Your task to perform on an android device: Search for vegetarian restaurants on Maps Image 0: 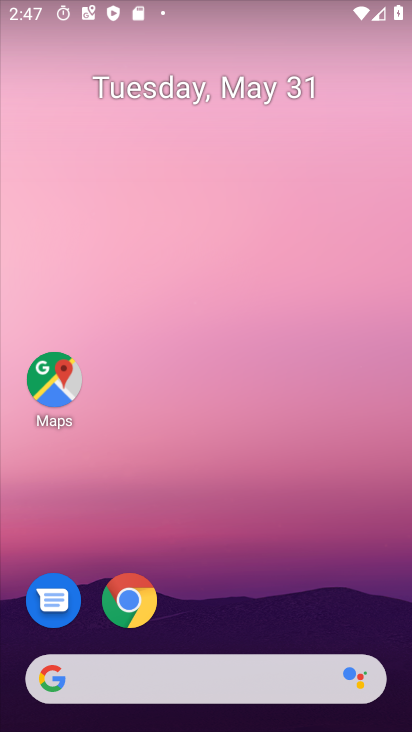
Step 0: press home button
Your task to perform on an android device: Search for vegetarian restaurants on Maps Image 1: 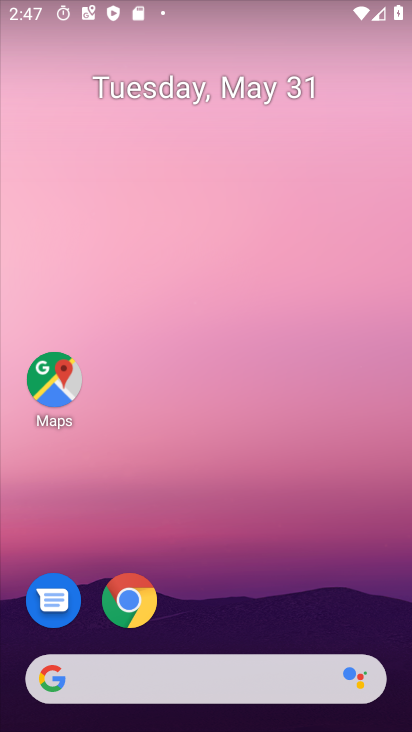
Step 1: drag from (220, 631) to (215, 112)
Your task to perform on an android device: Search for vegetarian restaurants on Maps Image 2: 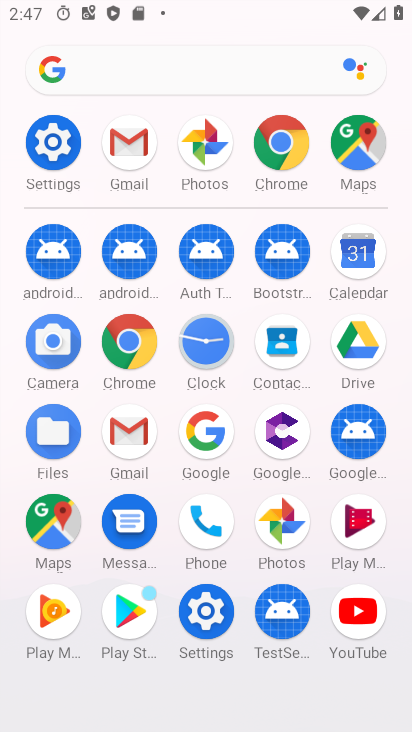
Step 2: click (50, 520)
Your task to perform on an android device: Search for vegetarian restaurants on Maps Image 3: 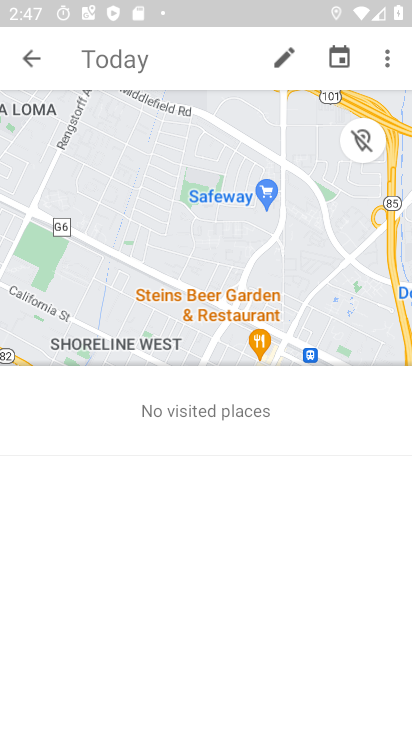
Step 3: click (32, 56)
Your task to perform on an android device: Search for vegetarian restaurants on Maps Image 4: 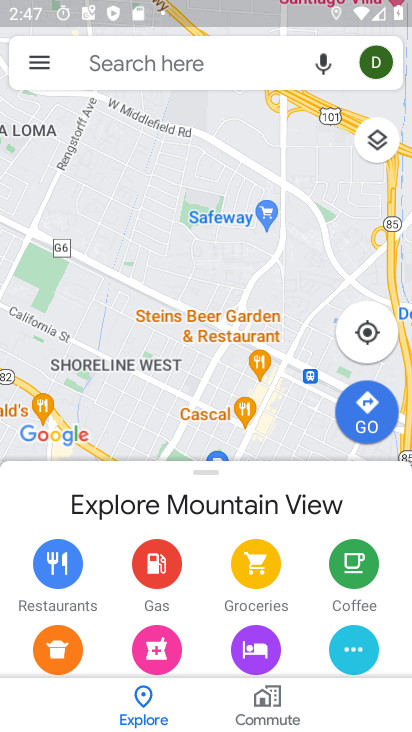
Step 4: click (118, 54)
Your task to perform on an android device: Search for vegetarian restaurants on Maps Image 5: 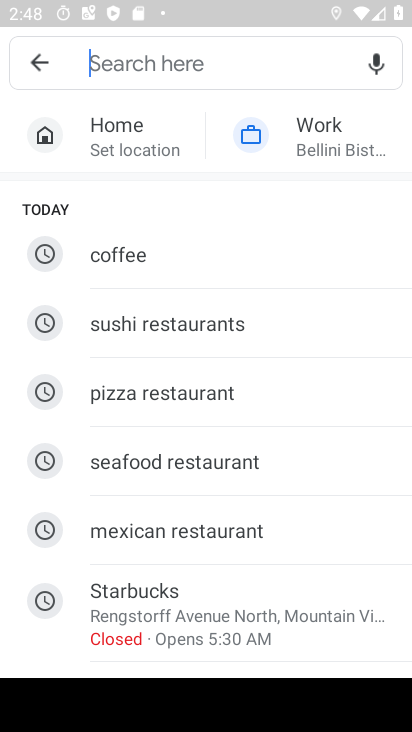
Step 5: type "vegetarian"
Your task to perform on an android device: Search for vegetarian restaurants on Maps Image 6: 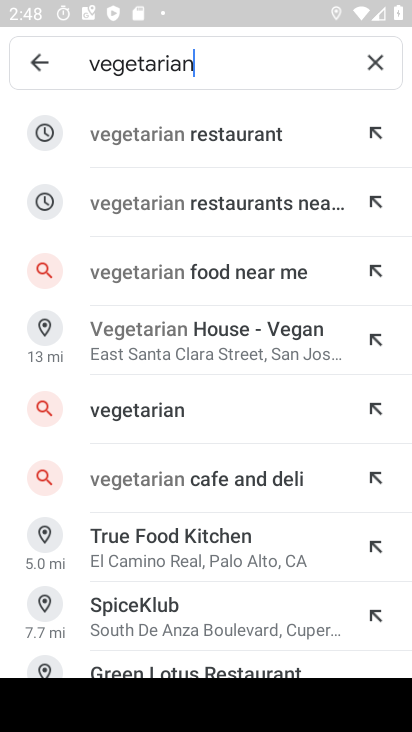
Step 6: click (187, 150)
Your task to perform on an android device: Search for vegetarian restaurants on Maps Image 7: 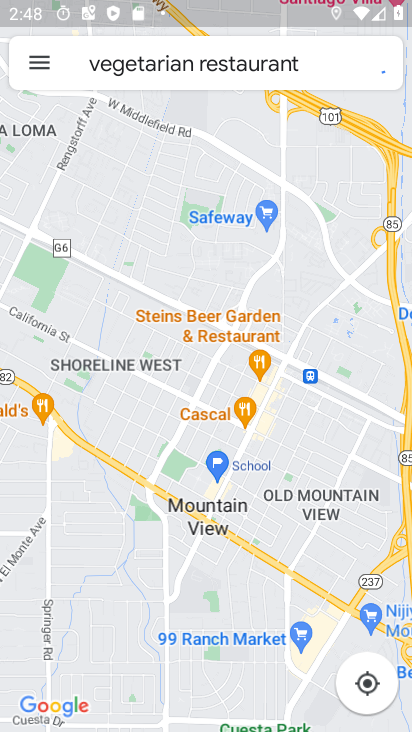
Step 7: task complete